Your task to perform on an android device: What's the weather today? Image 0: 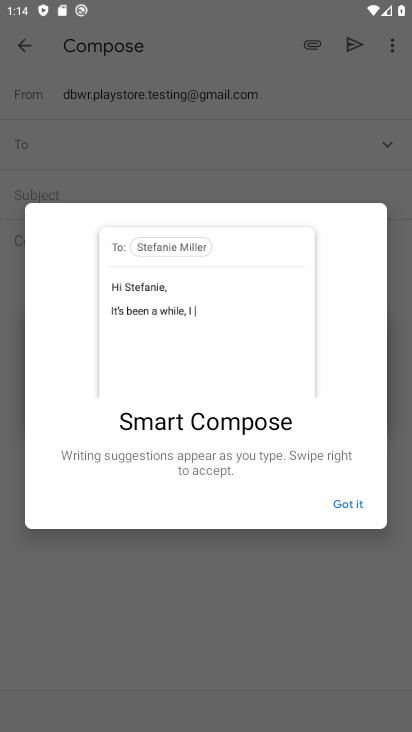
Step 0: press home button
Your task to perform on an android device: What's the weather today? Image 1: 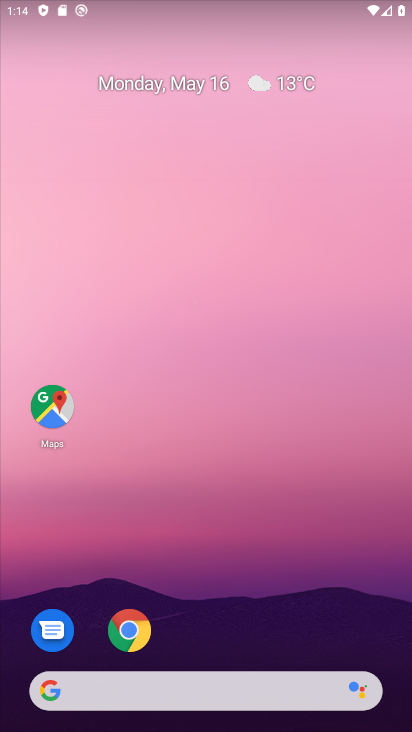
Step 1: drag from (267, 415) to (163, 93)
Your task to perform on an android device: What's the weather today? Image 2: 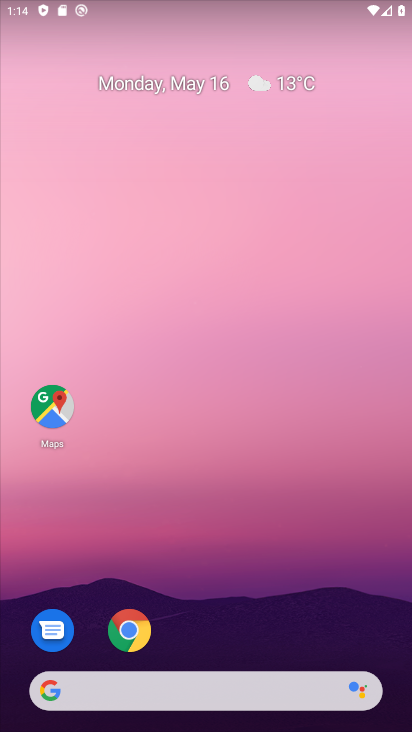
Step 2: click (192, 673)
Your task to perform on an android device: What's the weather today? Image 3: 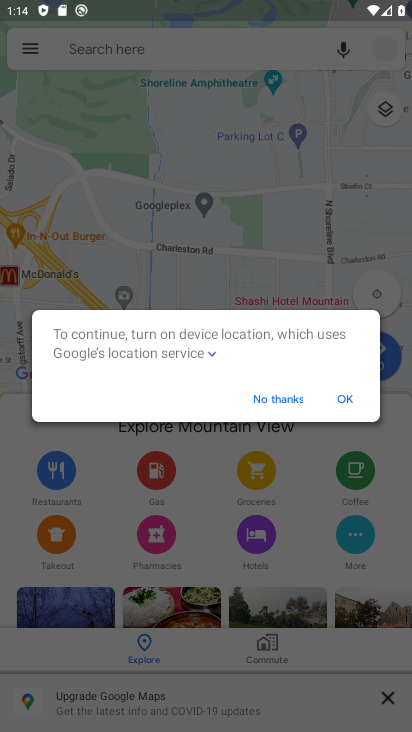
Step 3: click (300, 396)
Your task to perform on an android device: What's the weather today? Image 4: 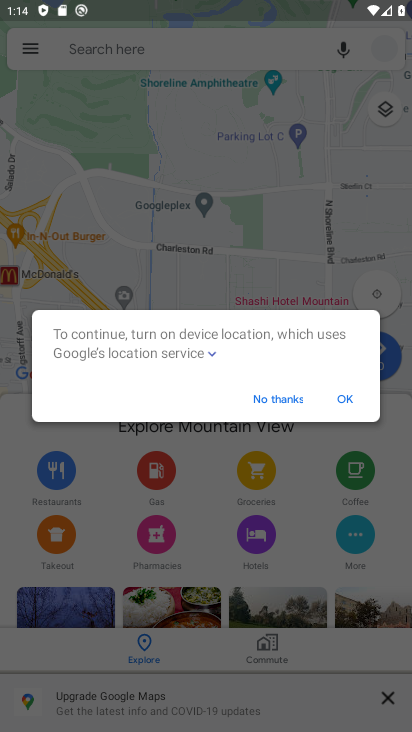
Step 4: click (290, 403)
Your task to perform on an android device: What's the weather today? Image 5: 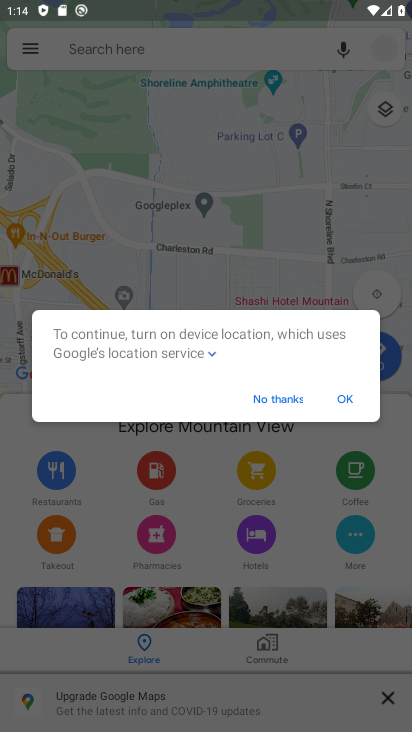
Step 5: click (276, 390)
Your task to perform on an android device: What's the weather today? Image 6: 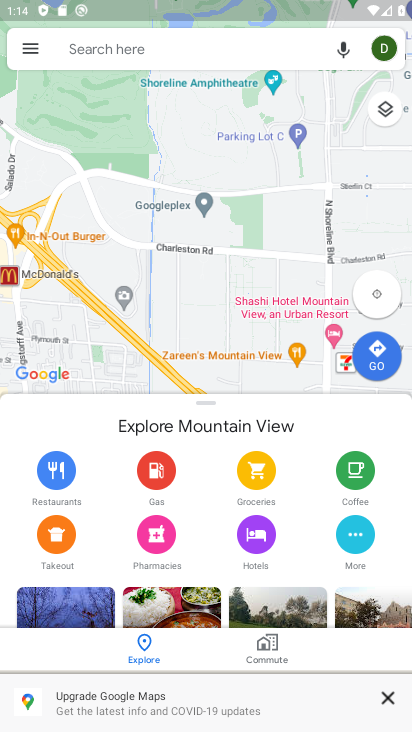
Step 6: click (276, 391)
Your task to perform on an android device: What's the weather today? Image 7: 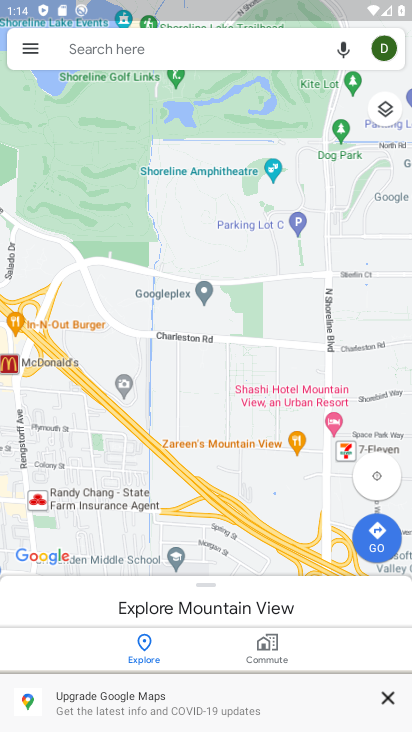
Step 7: click (184, 37)
Your task to perform on an android device: What's the weather today? Image 8: 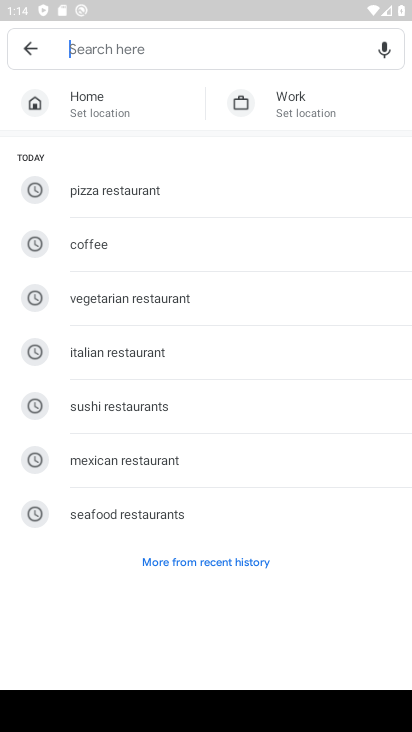
Step 8: press home button
Your task to perform on an android device: What's the weather today? Image 9: 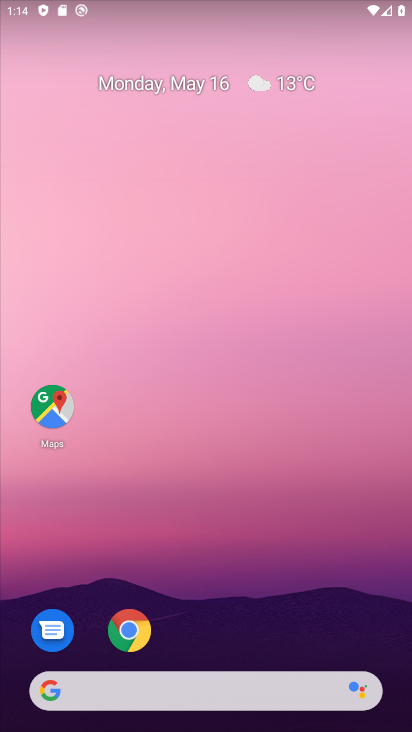
Step 9: drag from (170, 381) to (2, 24)
Your task to perform on an android device: What's the weather today? Image 10: 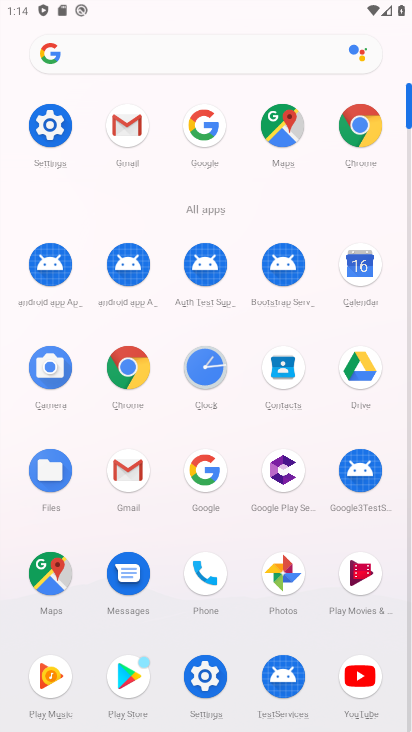
Step 10: press home button
Your task to perform on an android device: What's the weather today? Image 11: 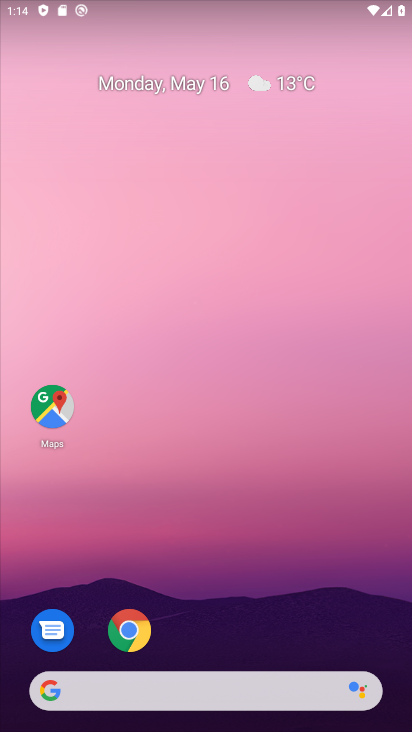
Step 11: click (135, 685)
Your task to perform on an android device: What's the weather today? Image 12: 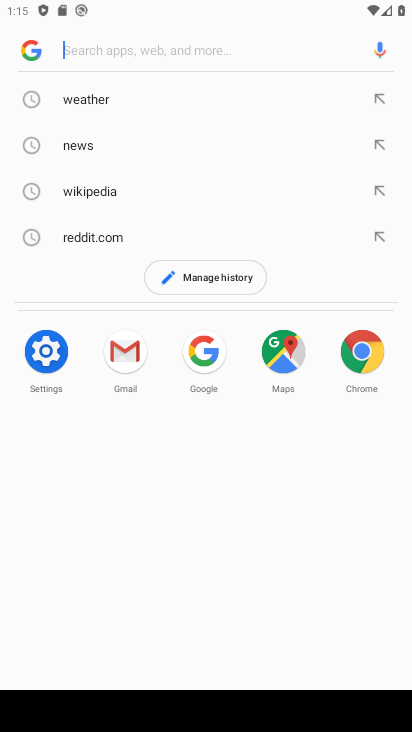
Step 12: click (96, 96)
Your task to perform on an android device: What's the weather today? Image 13: 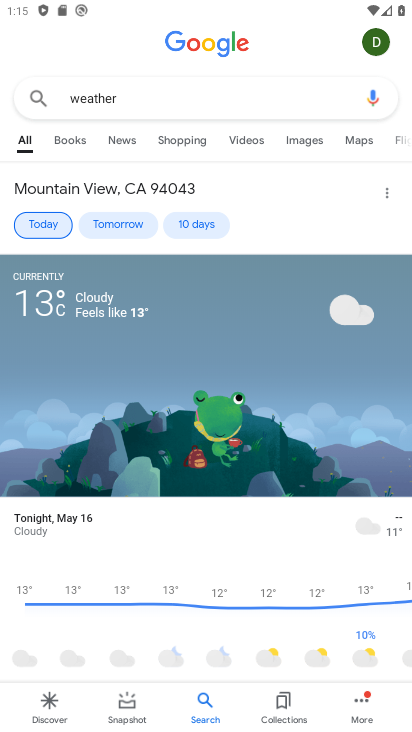
Step 13: task complete